Your task to perform on an android device: What's the weather going to be this weekend? Image 0: 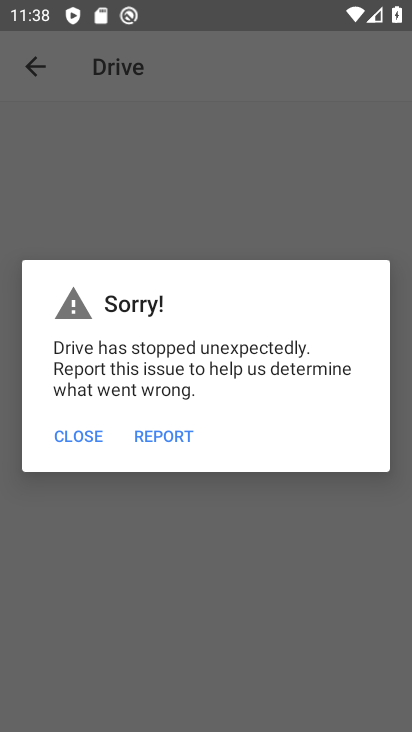
Step 0: press home button
Your task to perform on an android device: What's the weather going to be this weekend? Image 1: 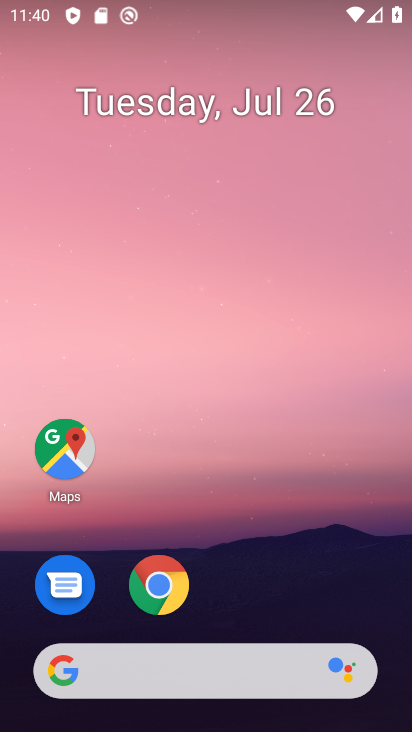
Step 1: click (262, 689)
Your task to perform on an android device: What's the weather going to be this weekend? Image 2: 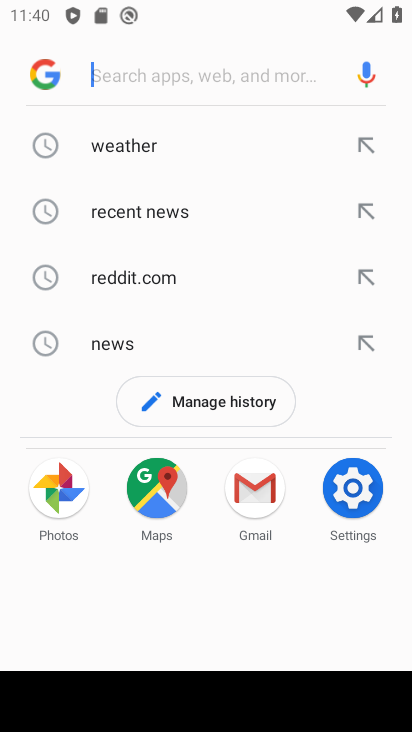
Step 2: click (129, 138)
Your task to perform on an android device: What's the weather going to be this weekend? Image 3: 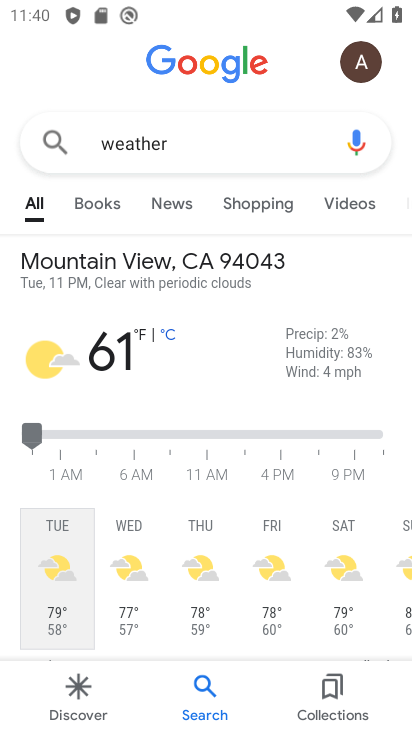
Step 3: click (192, 141)
Your task to perform on an android device: What's the weather going to be this weekend? Image 4: 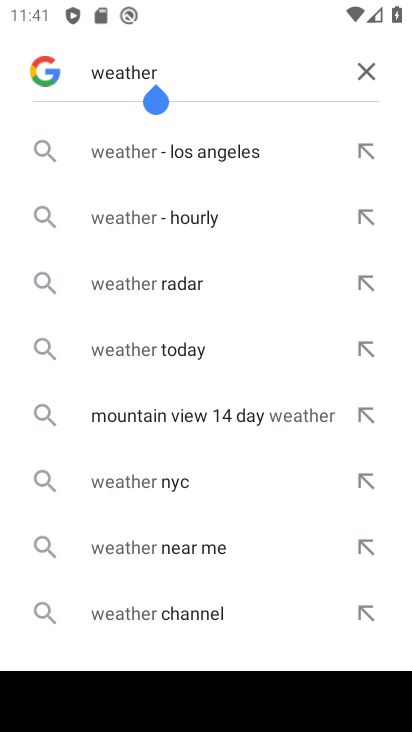
Step 4: click (364, 72)
Your task to perform on an android device: What's the weather going to be this weekend? Image 5: 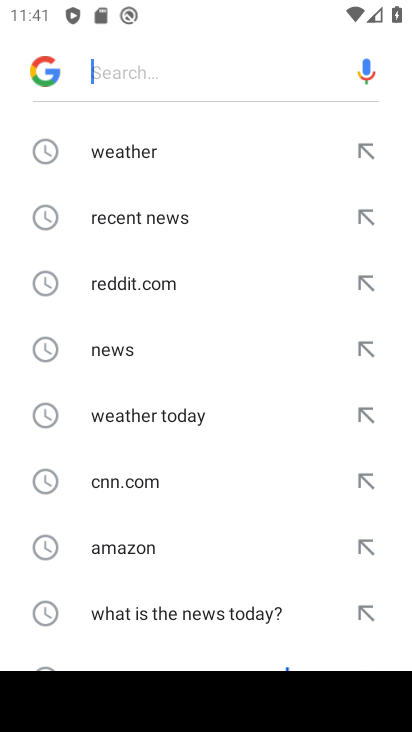
Step 5: click (126, 144)
Your task to perform on an android device: What's the weather going to be this weekend? Image 6: 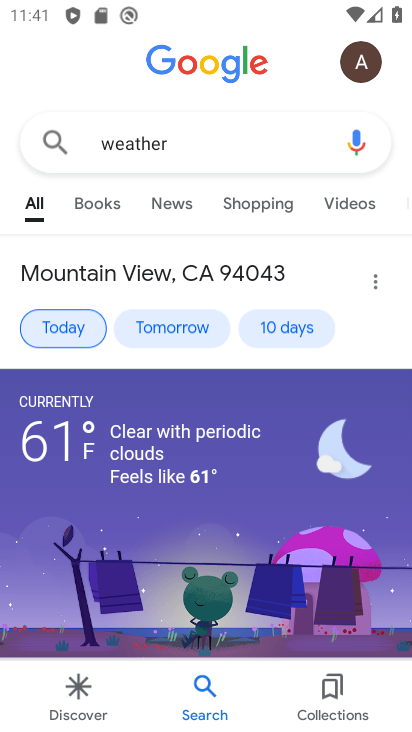
Step 6: click (290, 319)
Your task to perform on an android device: What's the weather going to be this weekend? Image 7: 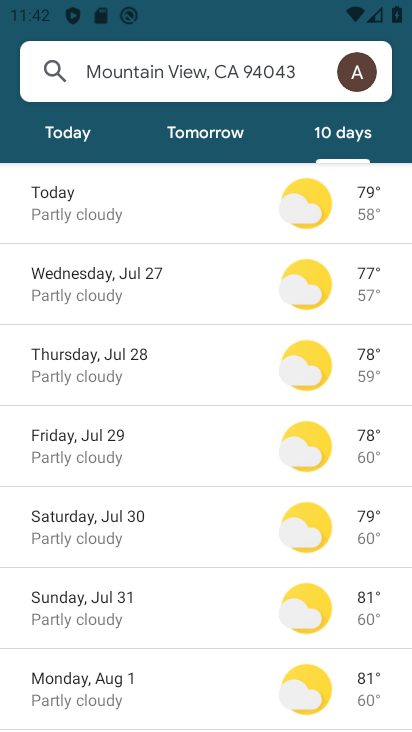
Step 7: click (93, 510)
Your task to perform on an android device: What's the weather going to be this weekend? Image 8: 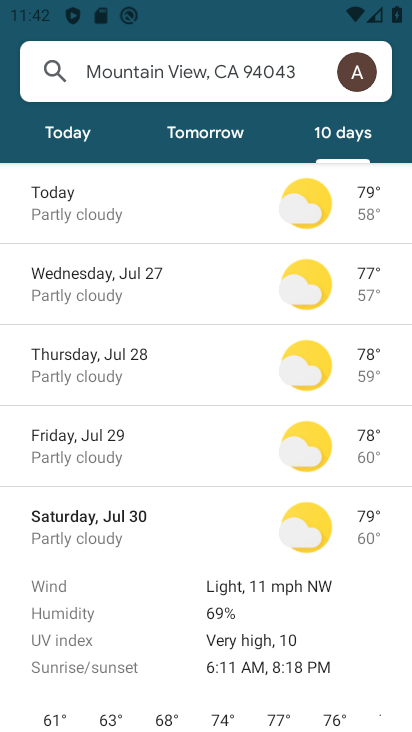
Step 8: task complete